Your task to perform on an android device: Open the stopwatch Image 0: 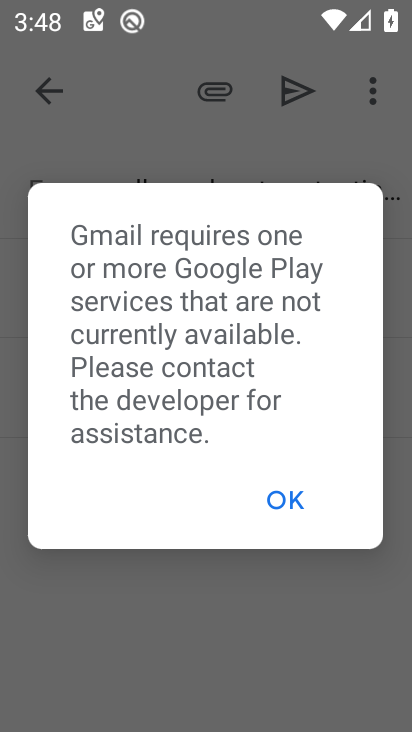
Step 0: press back button
Your task to perform on an android device: Open the stopwatch Image 1: 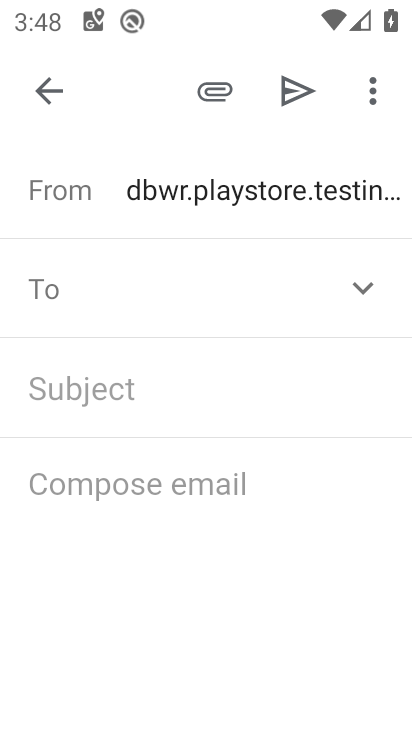
Step 1: press home button
Your task to perform on an android device: Open the stopwatch Image 2: 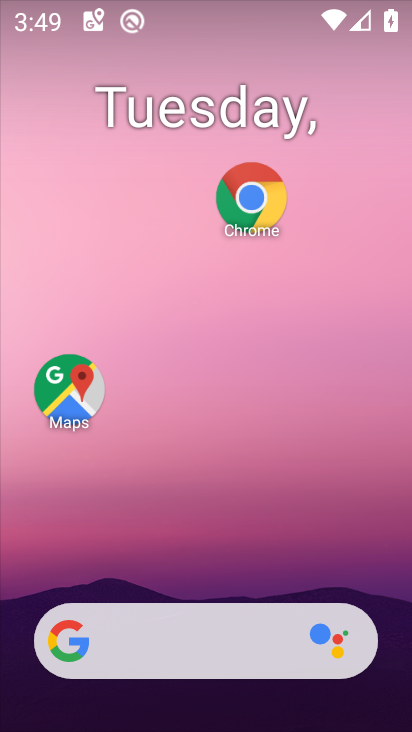
Step 2: drag from (206, 598) to (230, 97)
Your task to perform on an android device: Open the stopwatch Image 3: 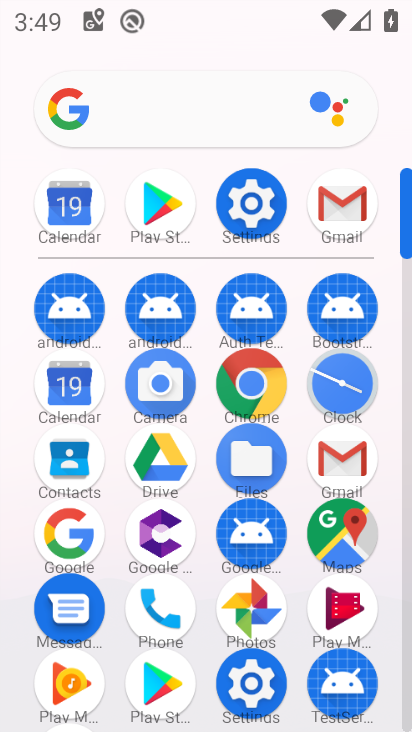
Step 3: click (337, 391)
Your task to perform on an android device: Open the stopwatch Image 4: 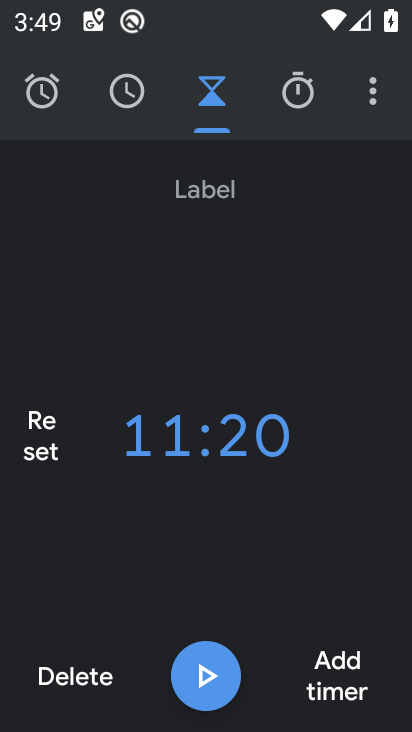
Step 4: click (300, 94)
Your task to perform on an android device: Open the stopwatch Image 5: 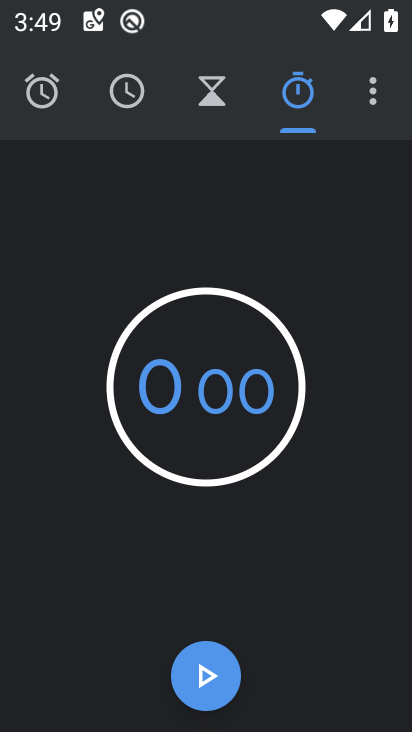
Step 5: click (221, 664)
Your task to perform on an android device: Open the stopwatch Image 6: 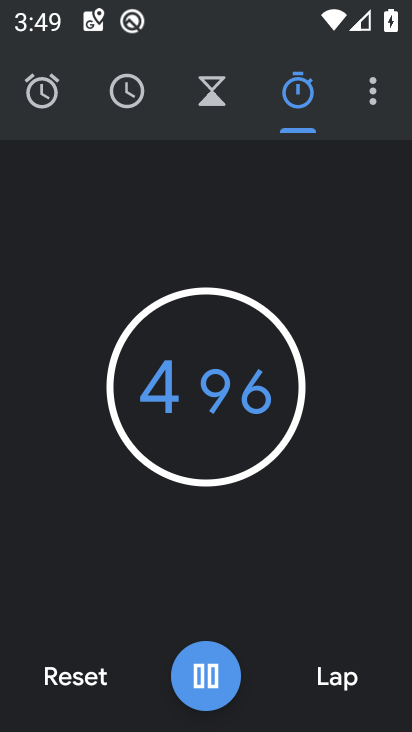
Step 6: click (197, 705)
Your task to perform on an android device: Open the stopwatch Image 7: 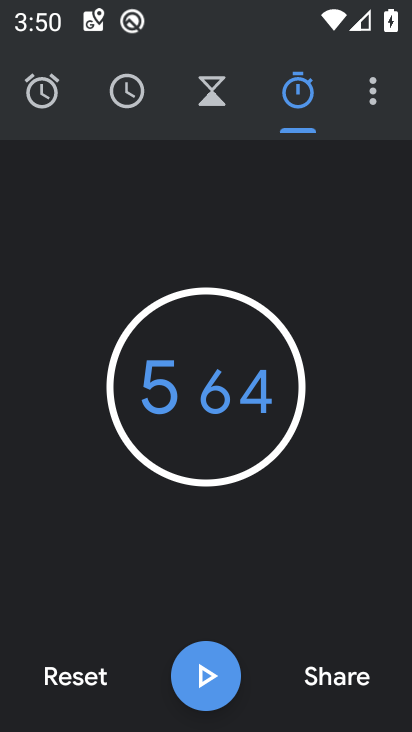
Step 7: task complete